Your task to perform on an android device: Show me productivity apps on the Play Store Image 0: 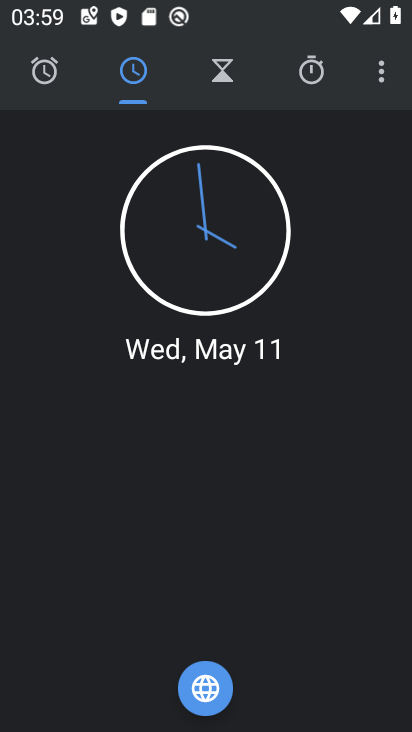
Step 0: press home button
Your task to perform on an android device: Show me productivity apps on the Play Store Image 1: 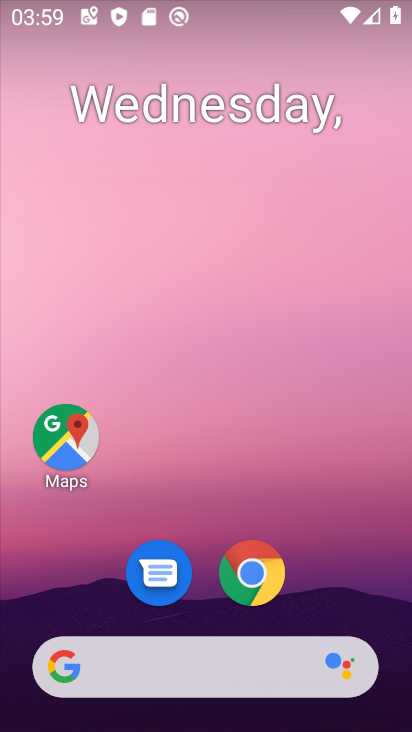
Step 1: drag from (345, 608) to (232, 50)
Your task to perform on an android device: Show me productivity apps on the Play Store Image 2: 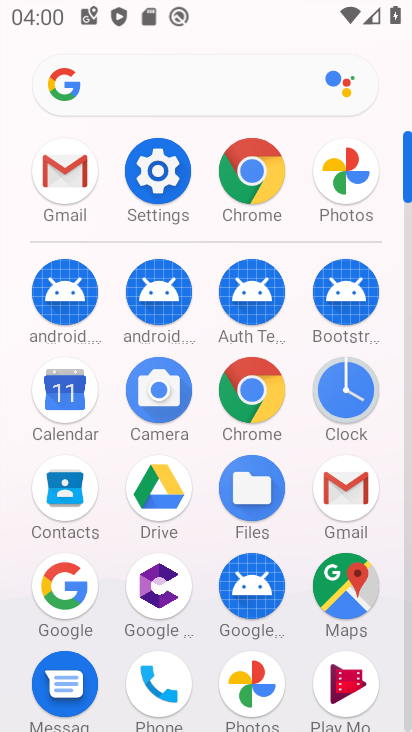
Step 2: drag from (113, 599) to (129, 367)
Your task to perform on an android device: Show me productivity apps on the Play Store Image 3: 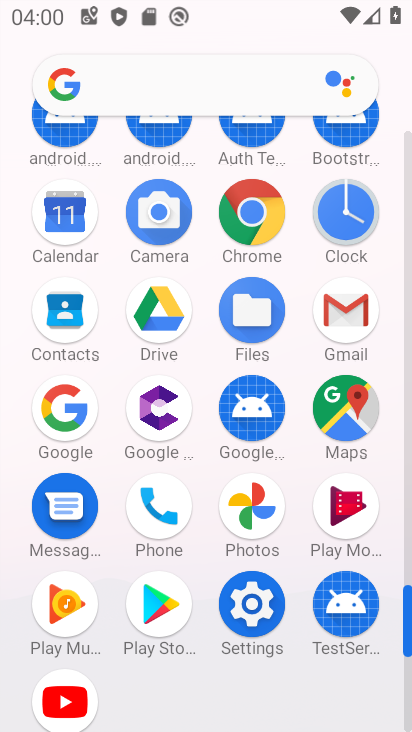
Step 3: click (161, 607)
Your task to perform on an android device: Show me productivity apps on the Play Store Image 4: 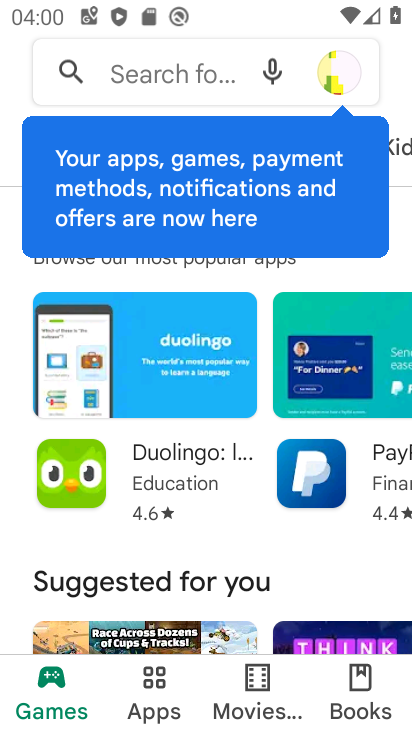
Step 4: click (154, 682)
Your task to perform on an android device: Show me productivity apps on the Play Store Image 5: 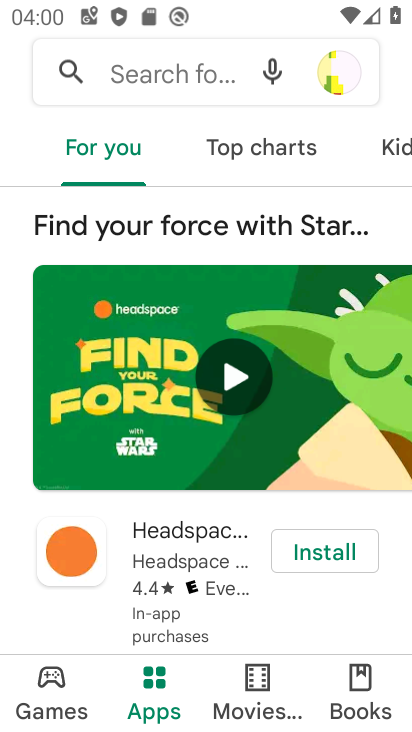
Step 5: drag from (362, 152) to (158, 147)
Your task to perform on an android device: Show me productivity apps on the Play Store Image 6: 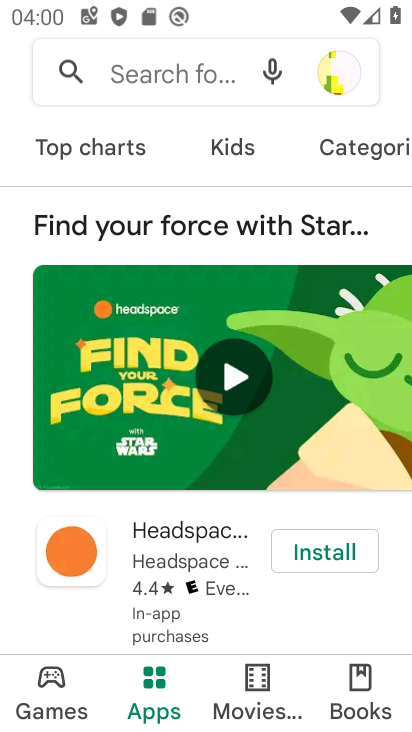
Step 6: click (361, 148)
Your task to perform on an android device: Show me productivity apps on the Play Store Image 7: 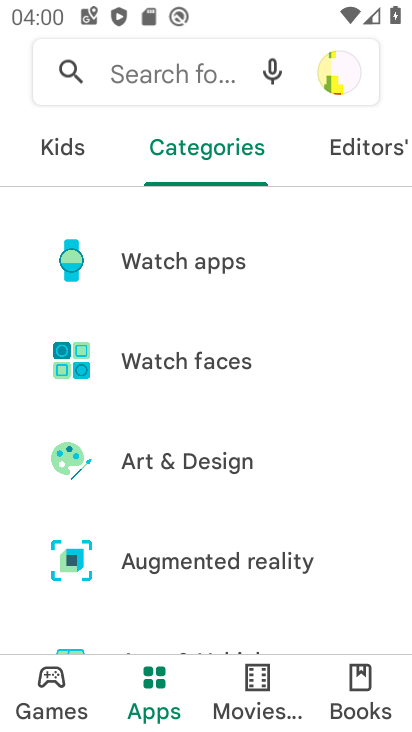
Step 7: drag from (207, 329) to (257, 243)
Your task to perform on an android device: Show me productivity apps on the Play Store Image 8: 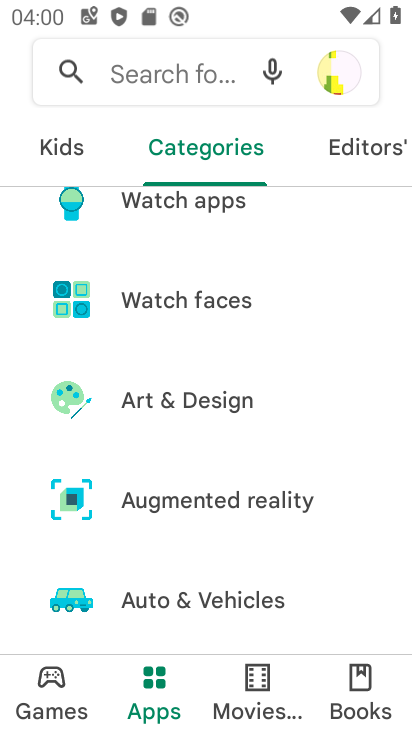
Step 8: drag from (217, 347) to (261, 251)
Your task to perform on an android device: Show me productivity apps on the Play Store Image 9: 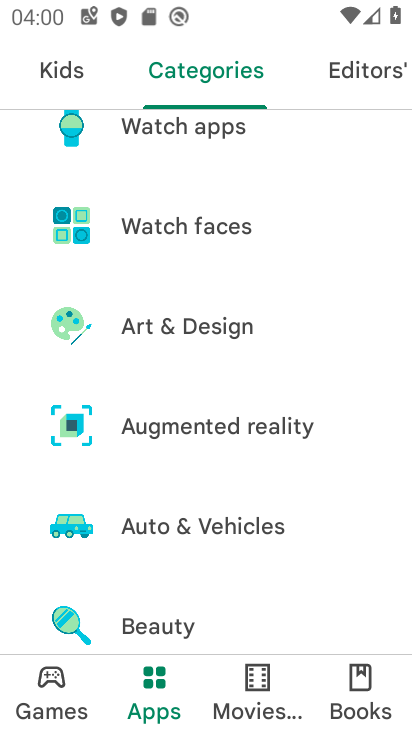
Step 9: drag from (201, 366) to (265, 276)
Your task to perform on an android device: Show me productivity apps on the Play Store Image 10: 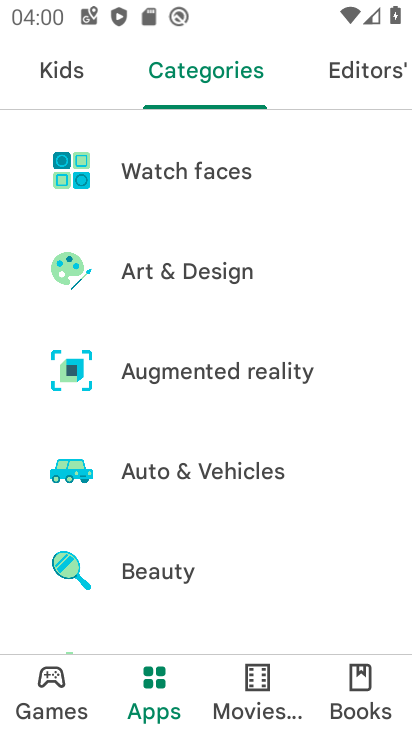
Step 10: drag from (197, 411) to (307, 279)
Your task to perform on an android device: Show me productivity apps on the Play Store Image 11: 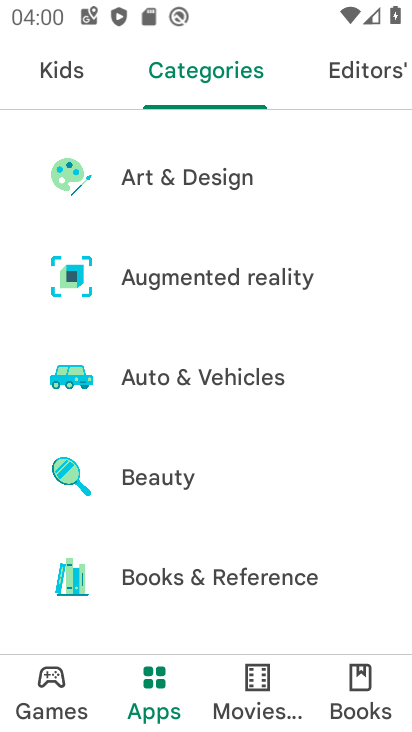
Step 11: drag from (218, 444) to (302, 309)
Your task to perform on an android device: Show me productivity apps on the Play Store Image 12: 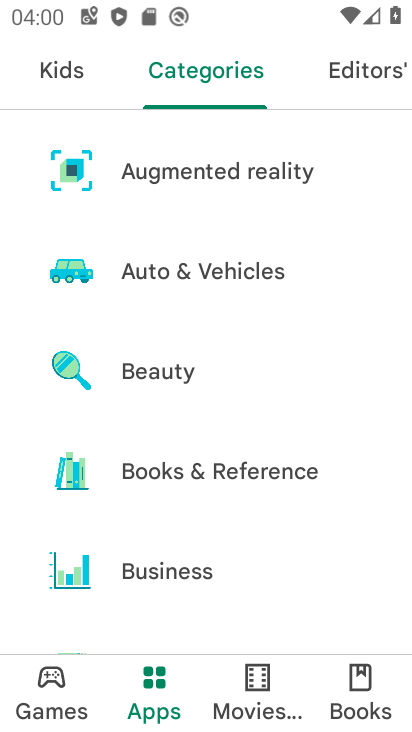
Step 12: drag from (210, 420) to (293, 298)
Your task to perform on an android device: Show me productivity apps on the Play Store Image 13: 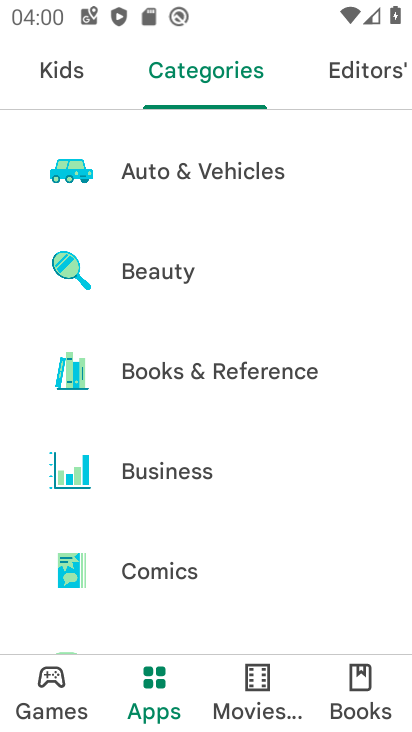
Step 13: drag from (157, 414) to (253, 288)
Your task to perform on an android device: Show me productivity apps on the Play Store Image 14: 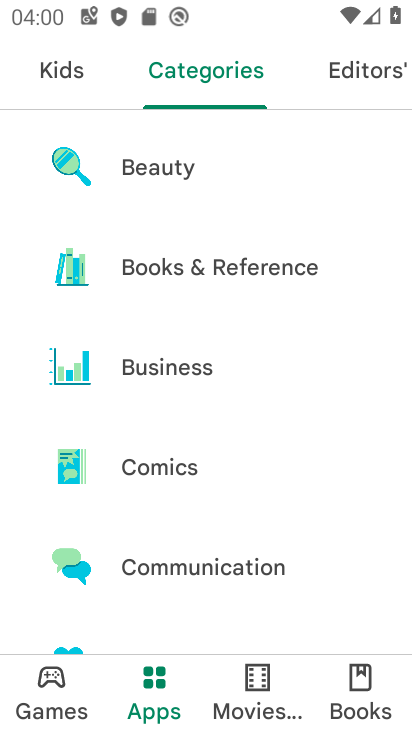
Step 14: drag from (164, 516) to (255, 369)
Your task to perform on an android device: Show me productivity apps on the Play Store Image 15: 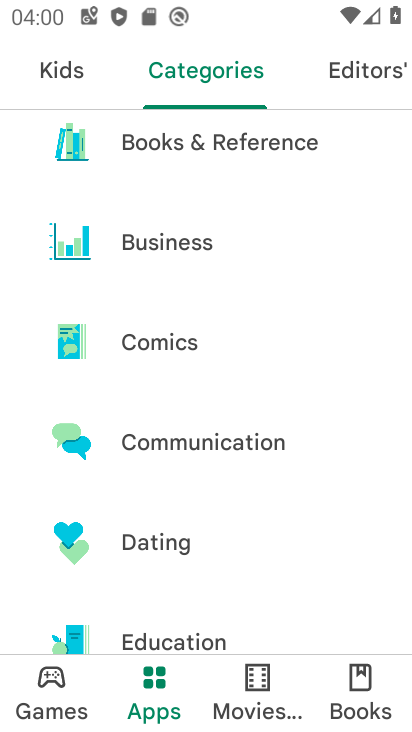
Step 15: drag from (221, 496) to (265, 378)
Your task to perform on an android device: Show me productivity apps on the Play Store Image 16: 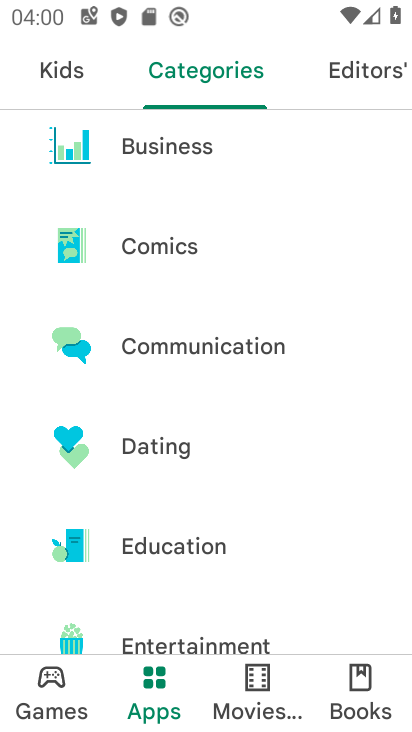
Step 16: drag from (215, 522) to (266, 362)
Your task to perform on an android device: Show me productivity apps on the Play Store Image 17: 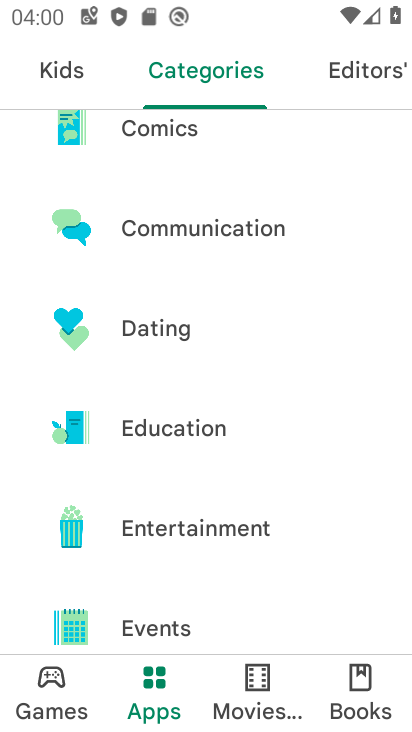
Step 17: drag from (223, 561) to (289, 416)
Your task to perform on an android device: Show me productivity apps on the Play Store Image 18: 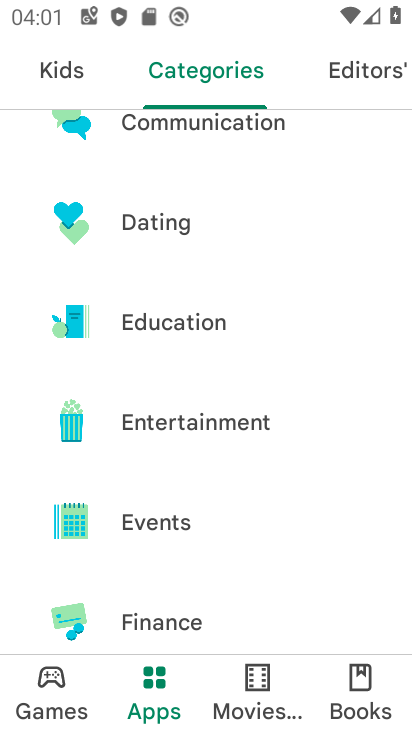
Step 18: drag from (217, 595) to (292, 410)
Your task to perform on an android device: Show me productivity apps on the Play Store Image 19: 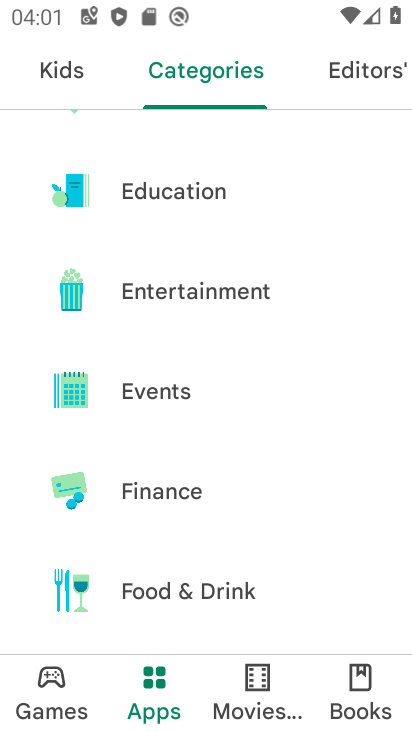
Step 19: drag from (223, 515) to (307, 375)
Your task to perform on an android device: Show me productivity apps on the Play Store Image 20: 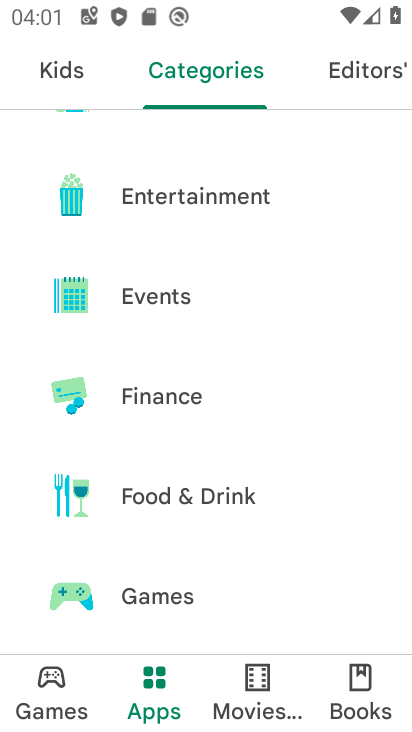
Step 20: drag from (212, 546) to (287, 365)
Your task to perform on an android device: Show me productivity apps on the Play Store Image 21: 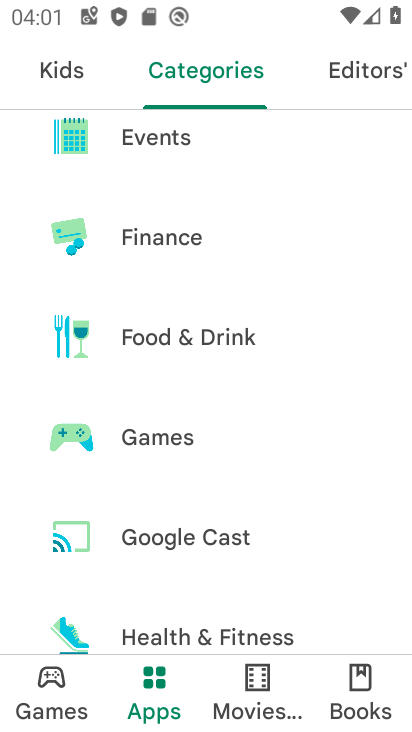
Step 21: drag from (187, 491) to (278, 338)
Your task to perform on an android device: Show me productivity apps on the Play Store Image 22: 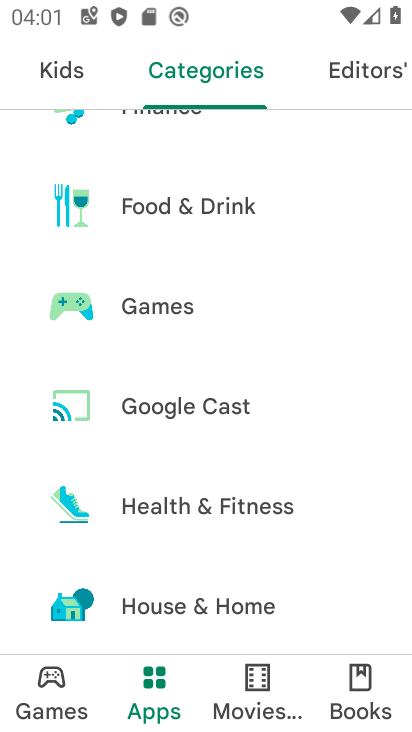
Step 22: drag from (191, 458) to (287, 319)
Your task to perform on an android device: Show me productivity apps on the Play Store Image 23: 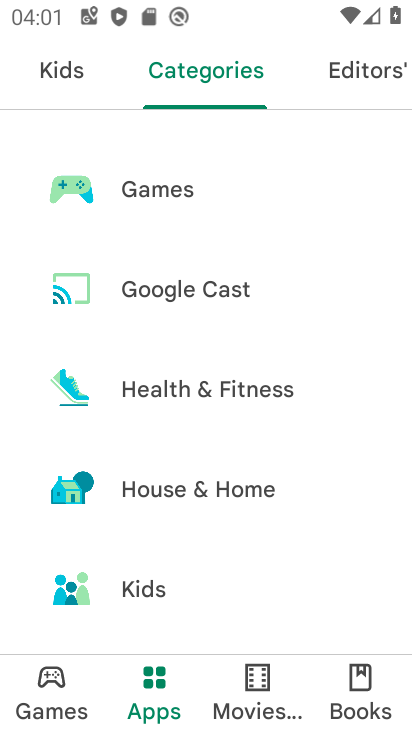
Step 23: drag from (179, 443) to (278, 304)
Your task to perform on an android device: Show me productivity apps on the Play Store Image 24: 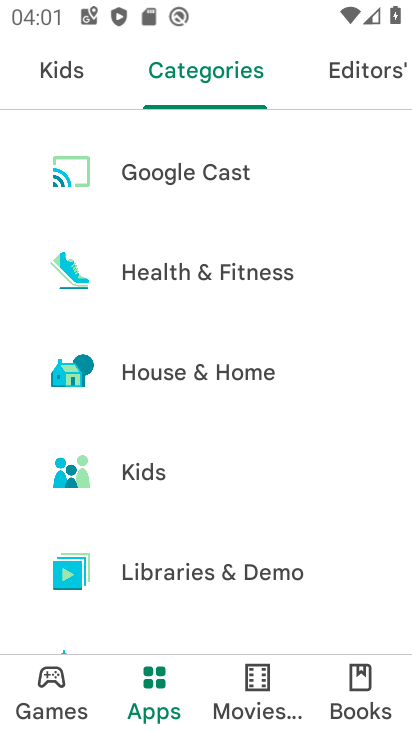
Step 24: drag from (168, 457) to (265, 330)
Your task to perform on an android device: Show me productivity apps on the Play Store Image 25: 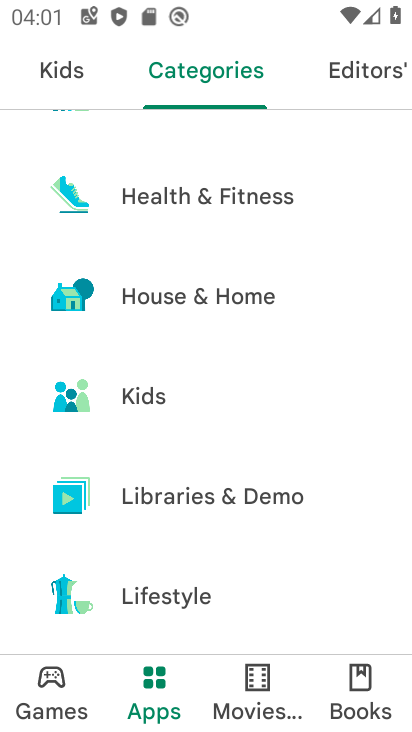
Step 25: drag from (158, 536) to (244, 383)
Your task to perform on an android device: Show me productivity apps on the Play Store Image 26: 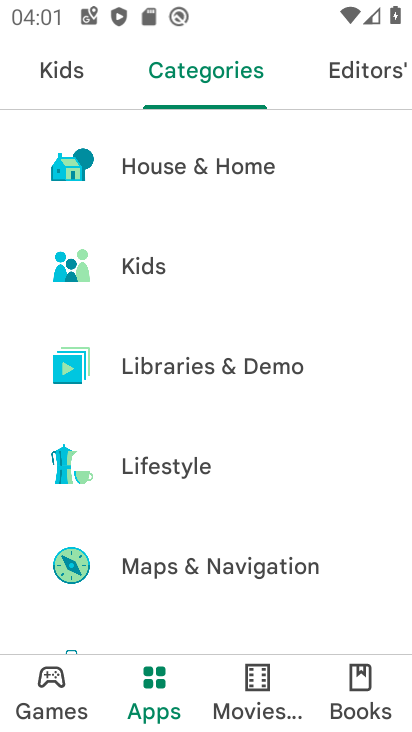
Step 26: drag from (143, 524) to (250, 380)
Your task to perform on an android device: Show me productivity apps on the Play Store Image 27: 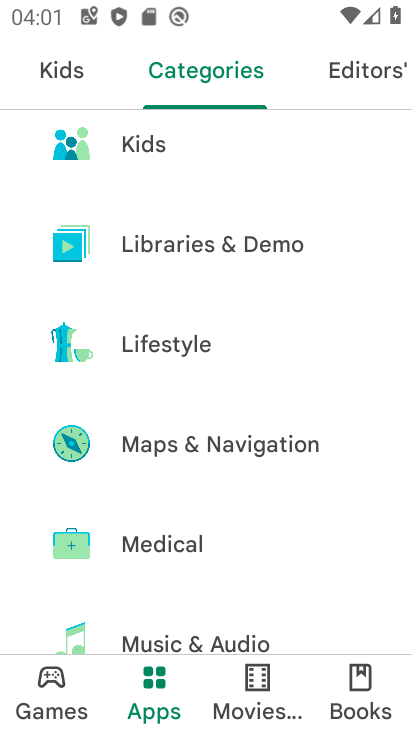
Step 27: drag from (241, 572) to (325, 407)
Your task to perform on an android device: Show me productivity apps on the Play Store Image 28: 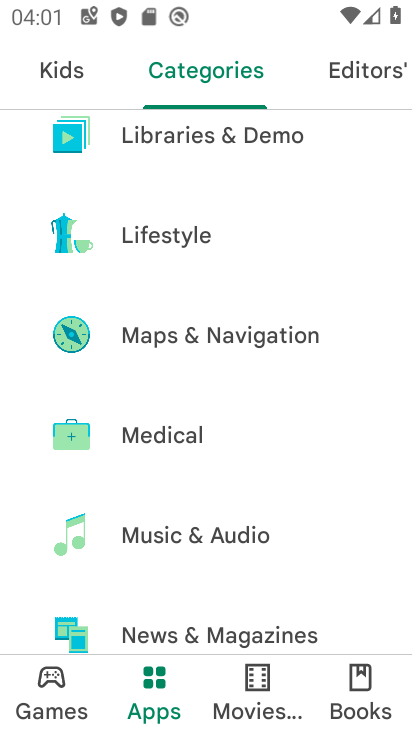
Step 28: drag from (220, 572) to (280, 485)
Your task to perform on an android device: Show me productivity apps on the Play Store Image 29: 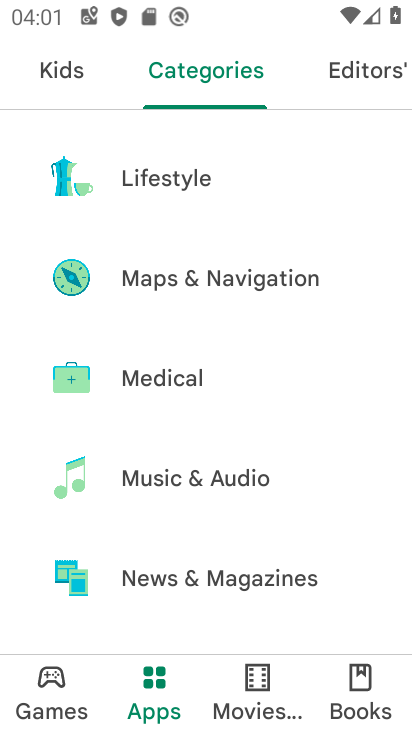
Step 29: drag from (234, 539) to (292, 390)
Your task to perform on an android device: Show me productivity apps on the Play Store Image 30: 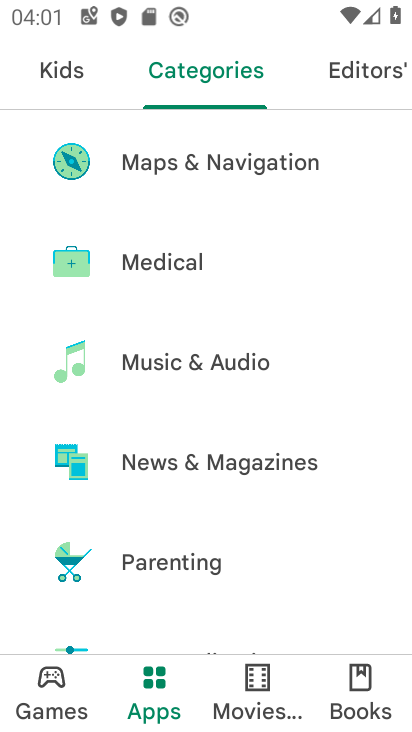
Step 30: drag from (201, 518) to (285, 408)
Your task to perform on an android device: Show me productivity apps on the Play Store Image 31: 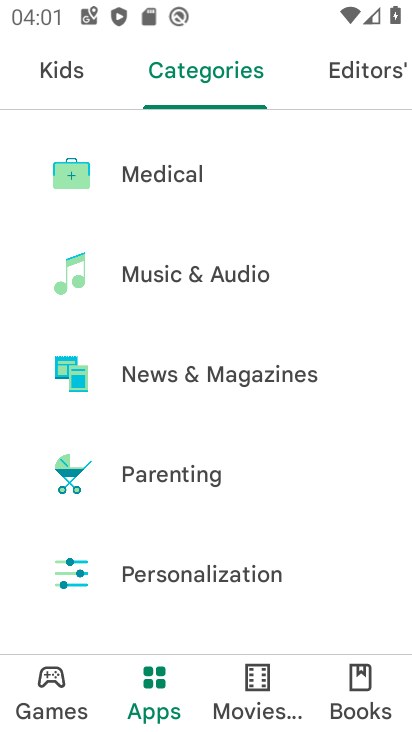
Step 31: drag from (196, 547) to (300, 385)
Your task to perform on an android device: Show me productivity apps on the Play Store Image 32: 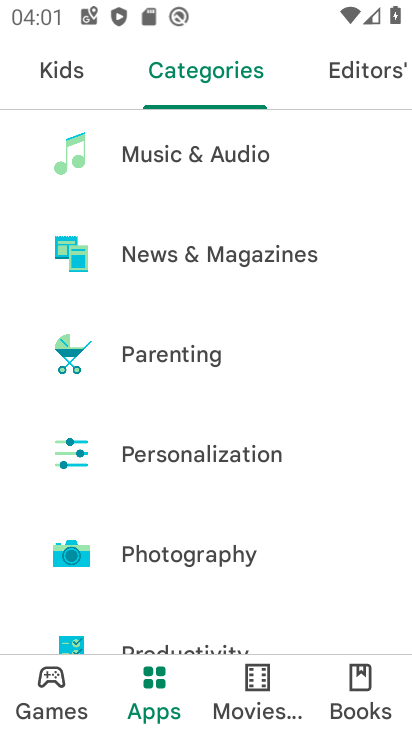
Step 32: drag from (215, 512) to (319, 375)
Your task to perform on an android device: Show me productivity apps on the Play Store Image 33: 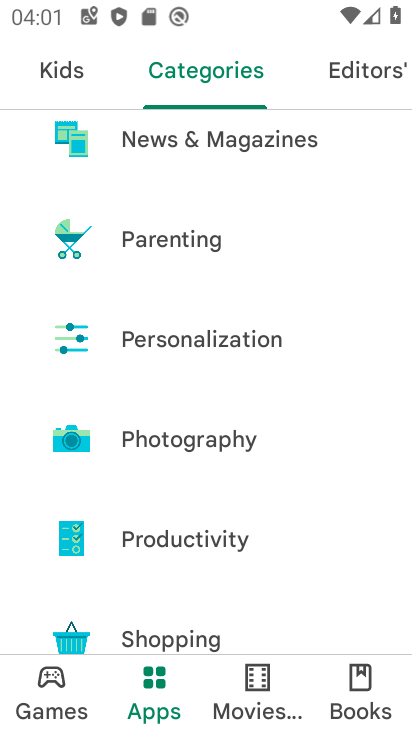
Step 33: click (192, 535)
Your task to perform on an android device: Show me productivity apps on the Play Store Image 34: 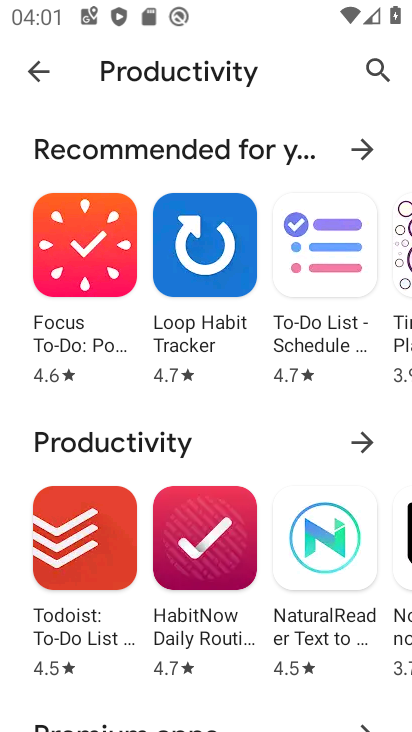
Step 34: task complete